Your task to perform on an android device: Open Google Image 0: 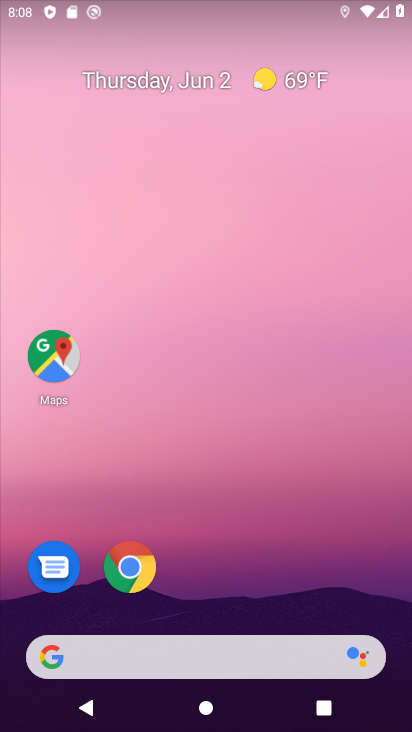
Step 0: drag from (267, 614) to (222, 15)
Your task to perform on an android device: Open Google Image 1: 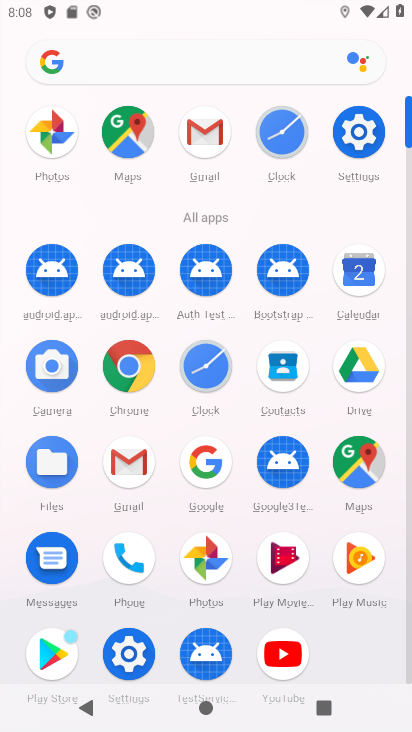
Step 1: click (198, 465)
Your task to perform on an android device: Open Google Image 2: 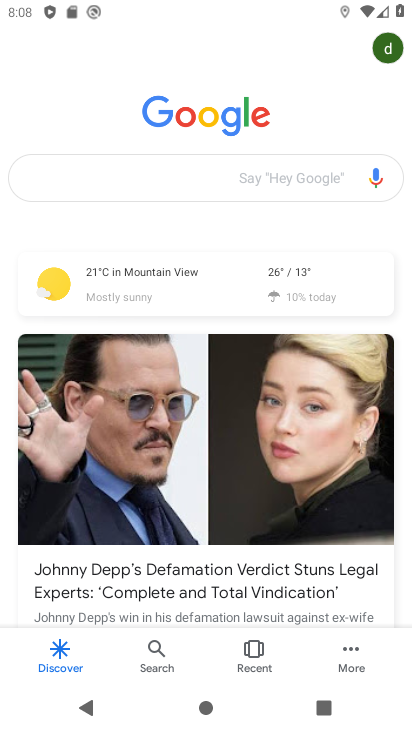
Step 2: task complete